Your task to perform on an android device: Search for "bose quietcomfort 35" on target, select the first entry, add it to the cart, then select checkout. Image 0: 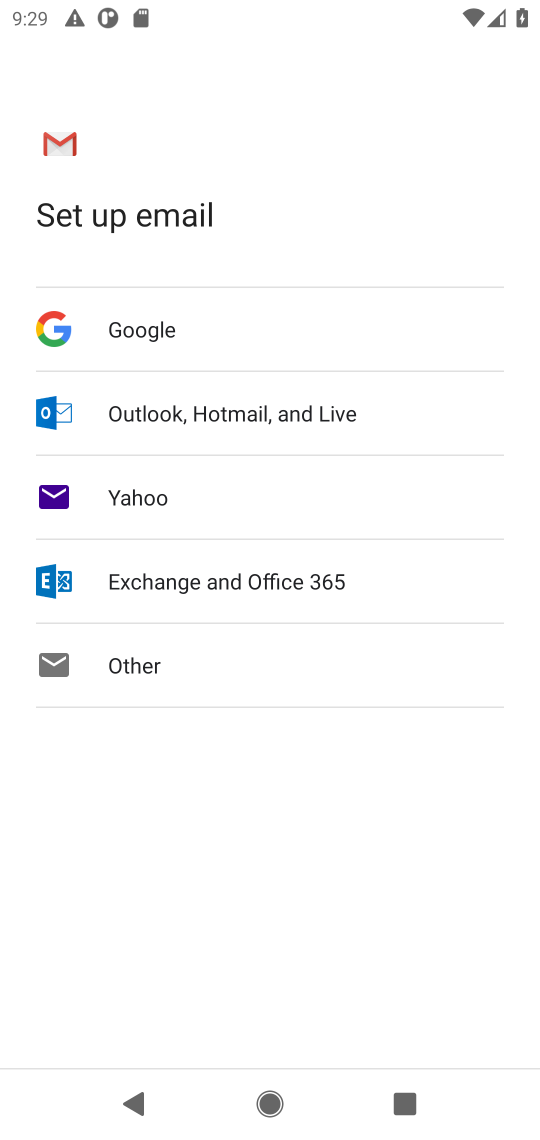
Step 0: press home button
Your task to perform on an android device: Search for "bose quietcomfort 35" on target, select the first entry, add it to the cart, then select checkout. Image 1: 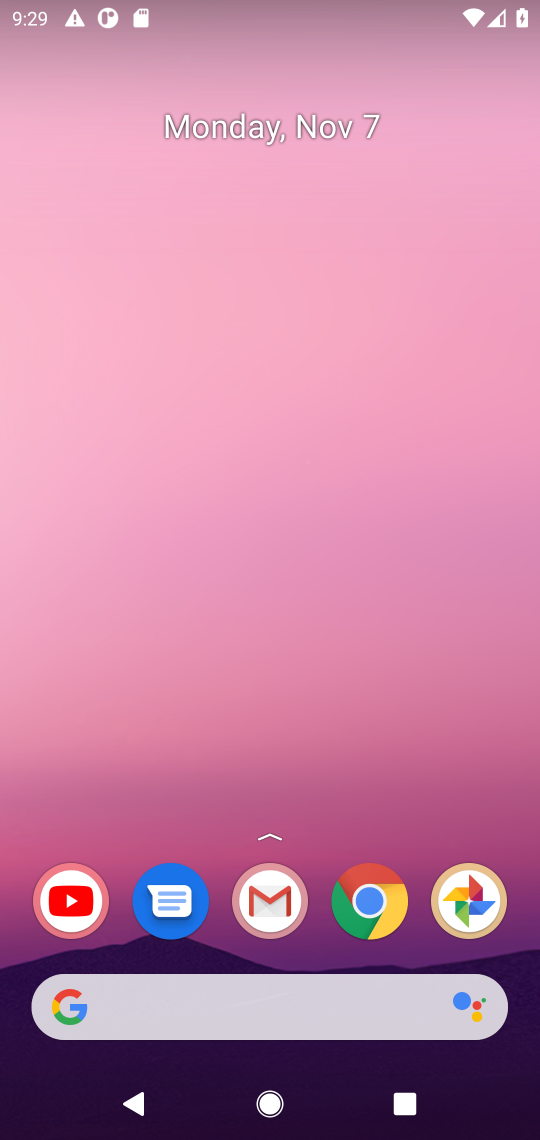
Step 1: click (374, 909)
Your task to perform on an android device: Search for "bose quietcomfort 35" on target, select the first entry, add it to the cart, then select checkout. Image 2: 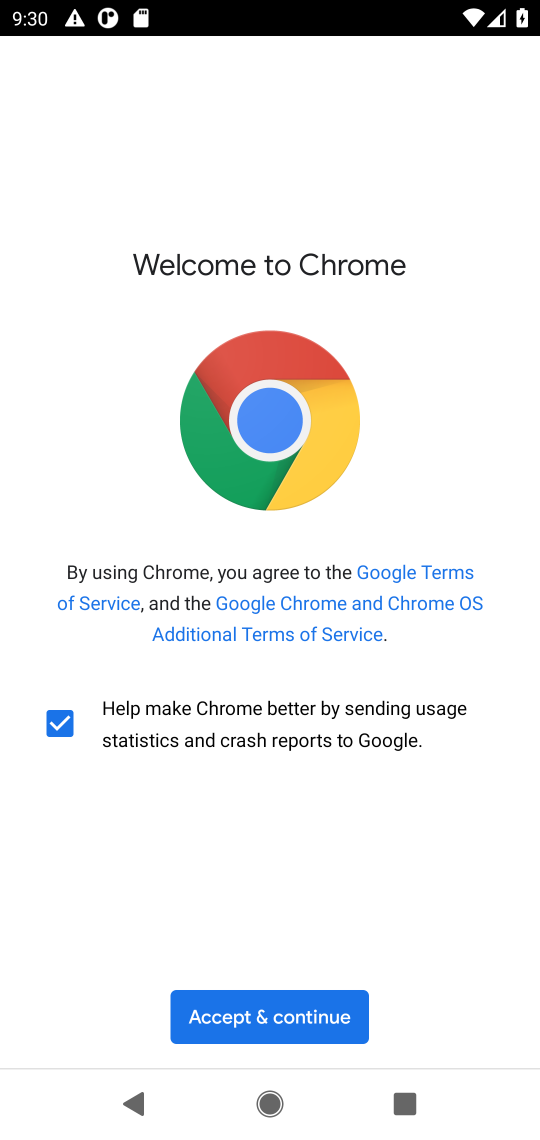
Step 2: click (298, 999)
Your task to perform on an android device: Search for "bose quietcomfort 35" on target, select the first entry, add it to the cart, then select checkout. Image 3: 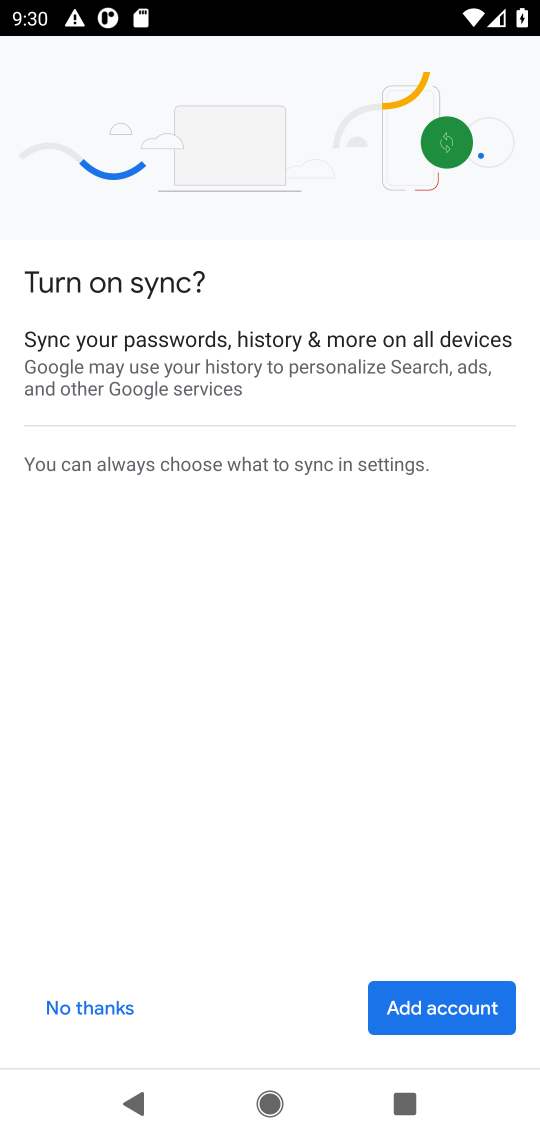
Step 3: click (106, 1009)
Your task to perform on an android device: Search for "bose quietcomfort 35" on target, select the first entry, add it to the cart, then select checkout. Image 4: 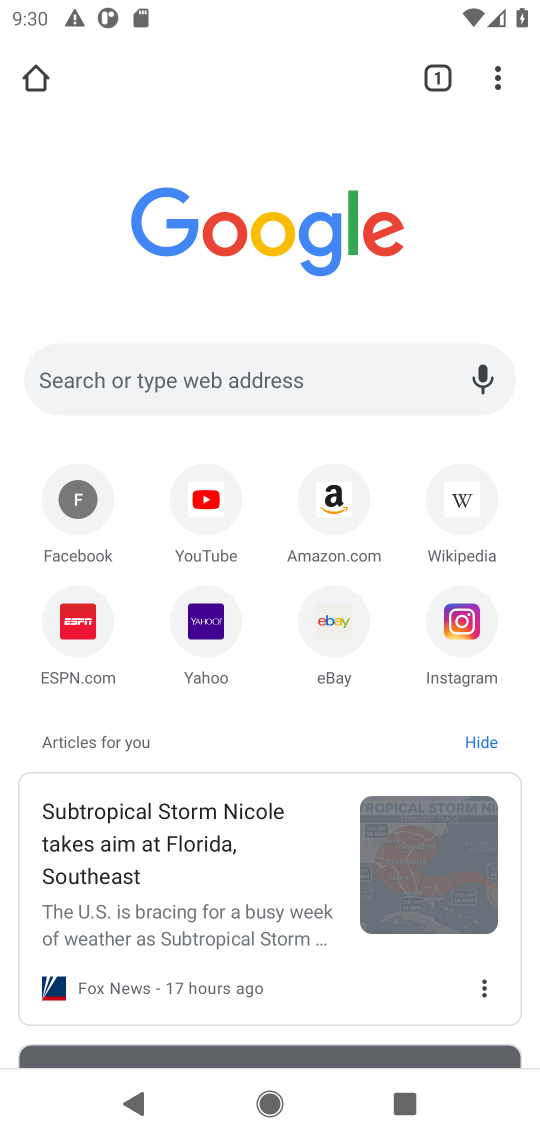
Step 4: click (292, 362)
Your task to perform on an android device: Search for "bose quietcomfort 35" on target, select the first entry, add it to the cart, then select checkout. Image 5: 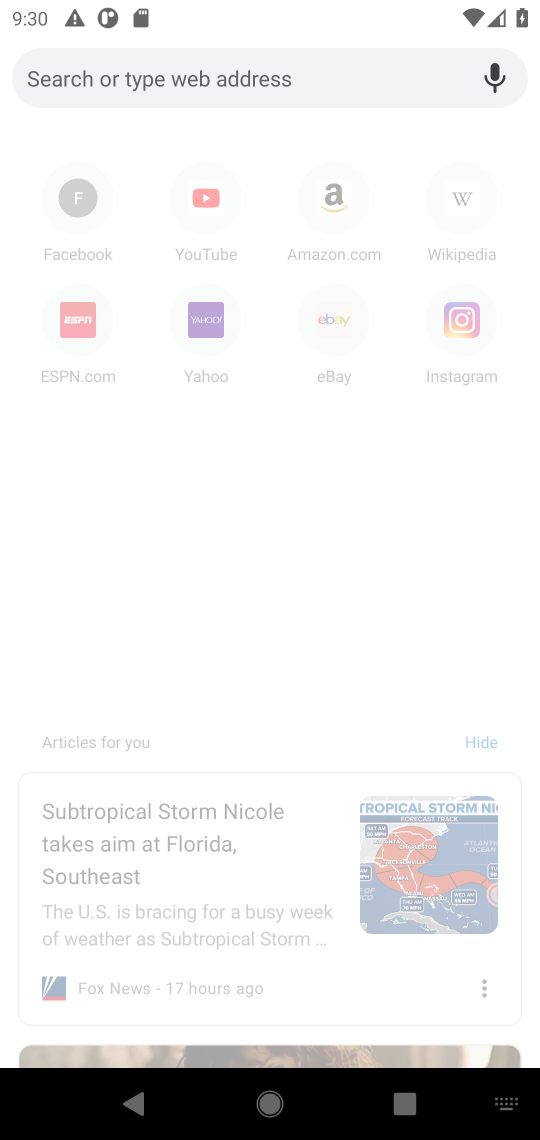
Step 5: type "target"
Your task to perform on an android device: Search for "bose quietcomfort 35" on target, select the first entry, add it to the cart, then select checkout. Image 6: 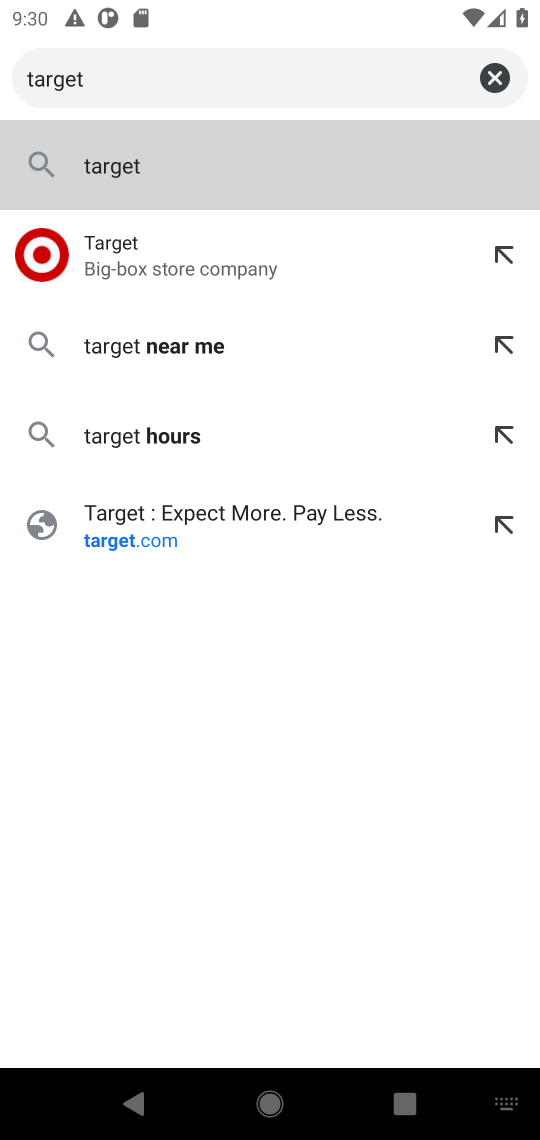
Step 6: click (241, 504)
Your task to perform on an android device: Search for "bose quietcomfort 35" on target, select the first entry, add it to the cart, then select checkout. Image 7: 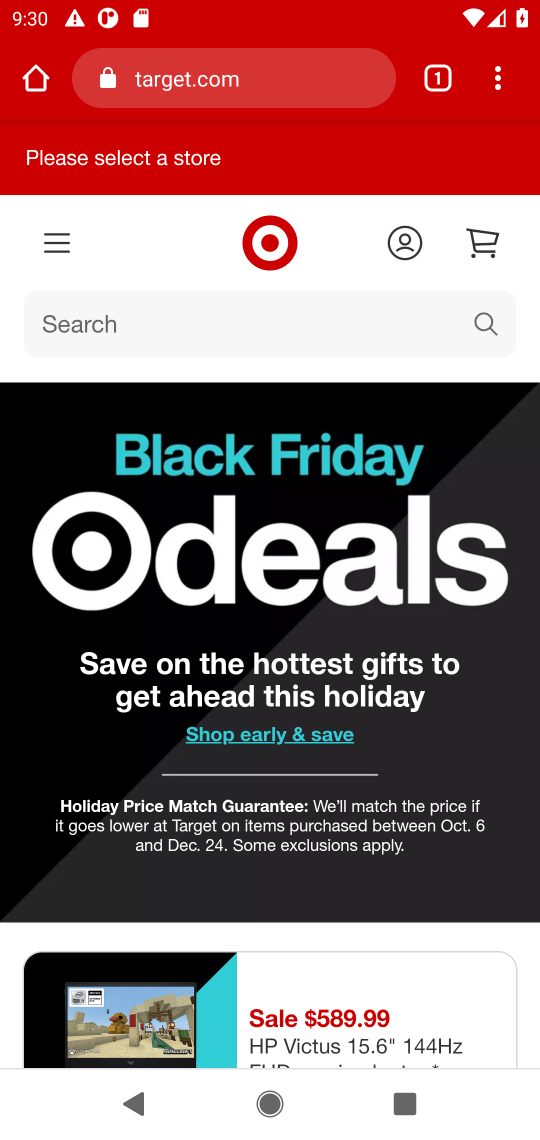
Step 7: click (155, 315)
Your task to perform on an android device: Search for "bose quietcomfort 35" on target, select the first entry, add it to the cart, then select checkout. Image 8: 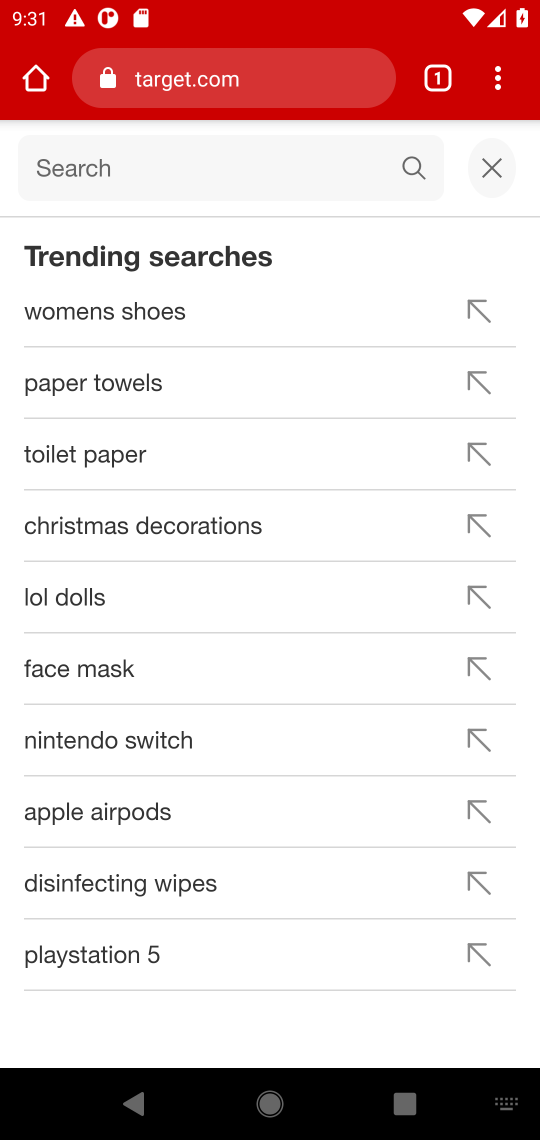
Step 8: type "bose quietcomfort 35"
Your task to perform on an android device: Search for "bose quietcomfort 35" on target, select the first entry, add it to the cart, then select checkout. Image 9: 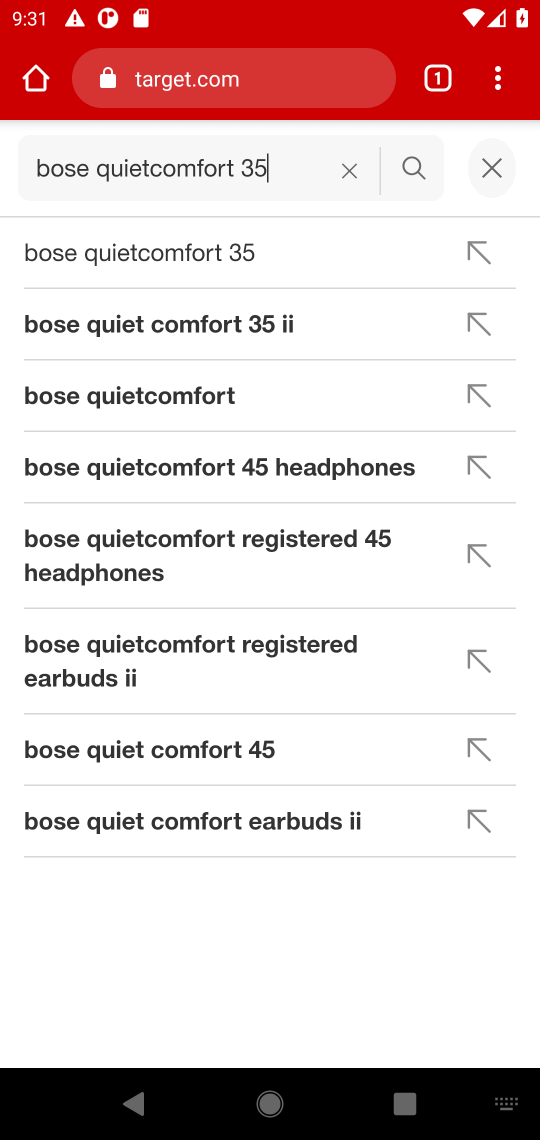
Step 9: press enter
Your task to perform on an android device: Search for "bose quietcomfort 35" on target, select the first entry, add it to the cart, then select checkout. Image 10: 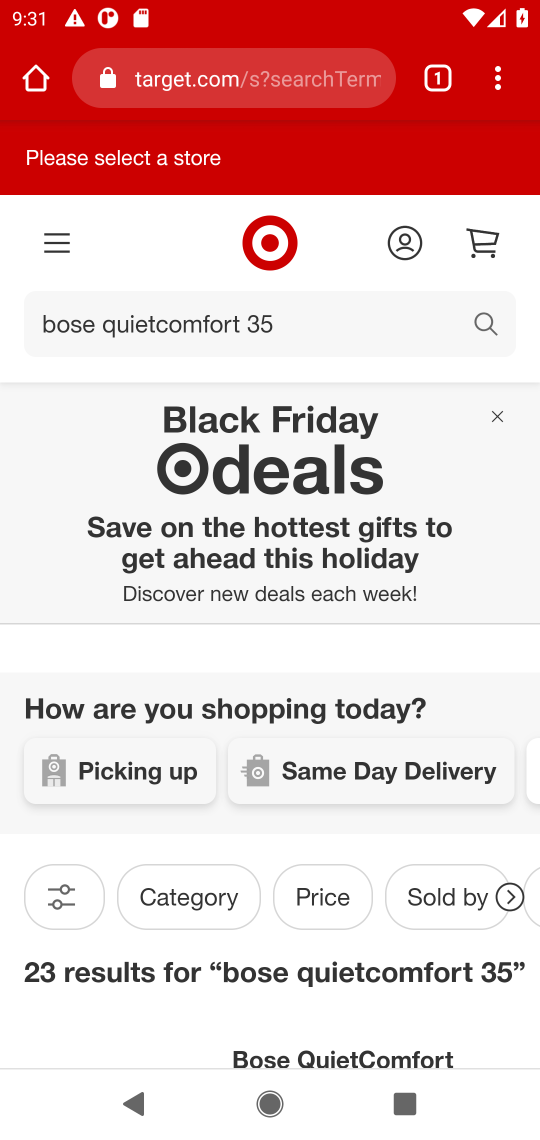
Step 10: drag from (357, 982) to (342, 58)
Your task to perform on an android device: Search for "bose quietcomfort 35" on target, select the first entry, add it to the cart, then select checkout. Image 11: 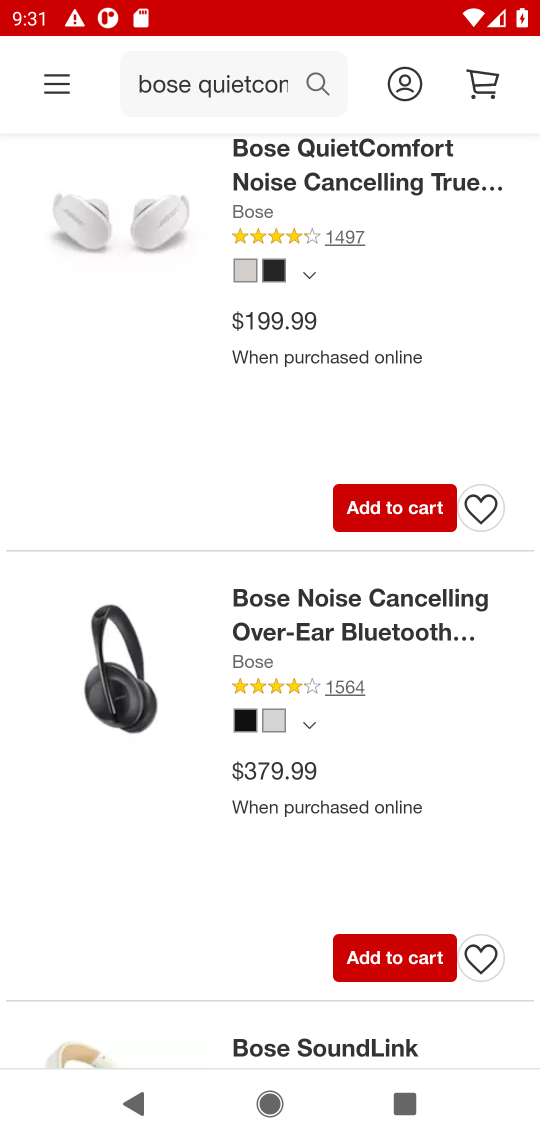
Step 11: click (388, 512)
Your task to perform on an android device: Search for "bose quietcomfort 35" on target, select the first entry, add it to the cart, then select checkout. Image 12: 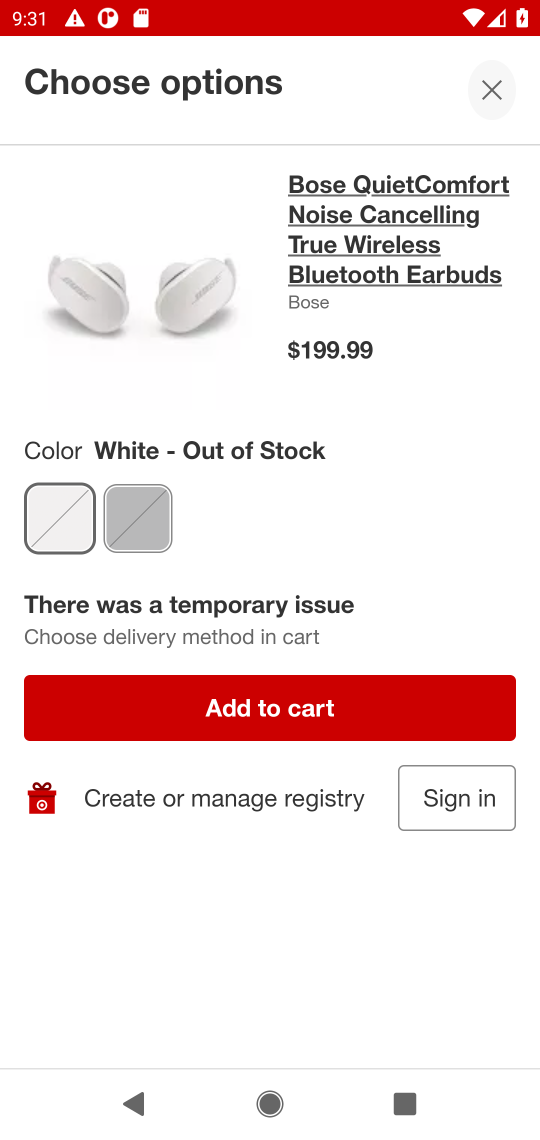
Step 12: click (339, 726)
Your task to perform on an android device: Search for "bose quietcomfort 35" on target, select the first entry, add it to the cart, then select checkout. Image 13: 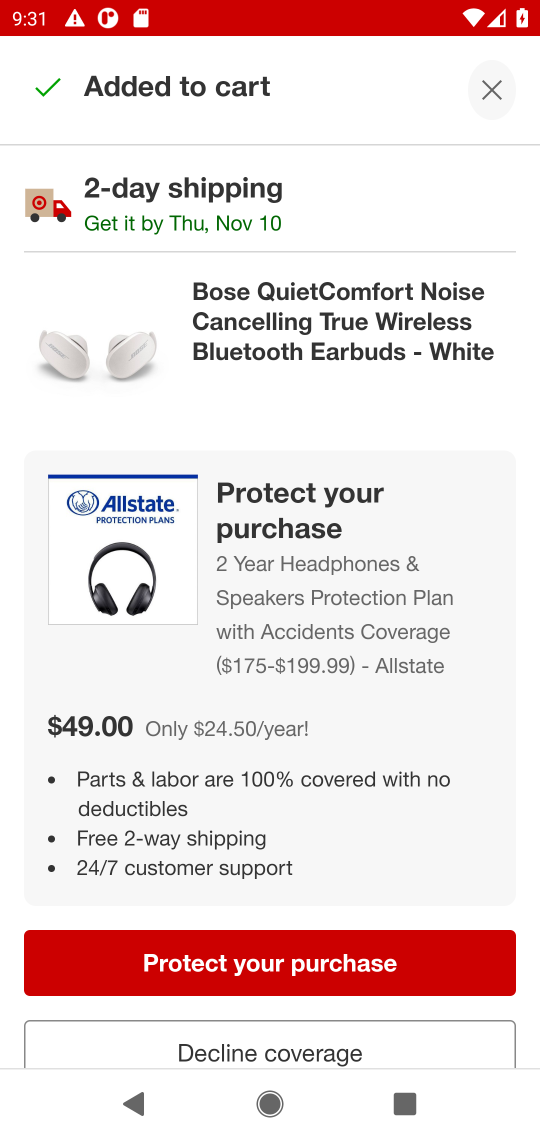
Step 13: click (375, 1048)
Your task to perform on an android device: Search for "bose quietcomfort 35" on target, select the first entry, add it to the cart, then select checkout. Image 14: 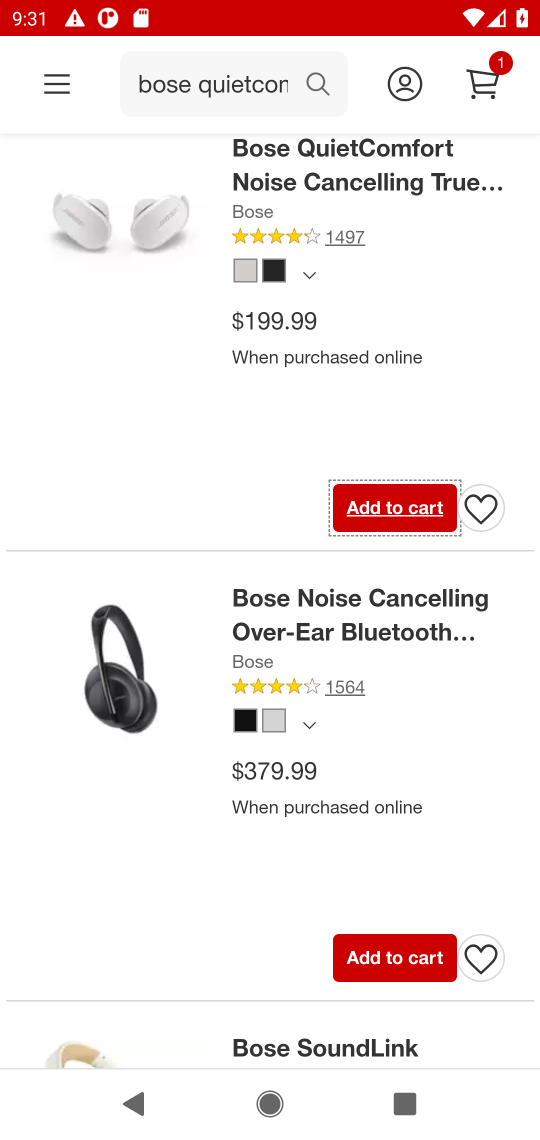
Step 14: click (487, 90)
Your task to perform on an android device: Search for "bose quietcomfort 35" on target, select the first entry, add it to the cart, then select checkout. Image 15: 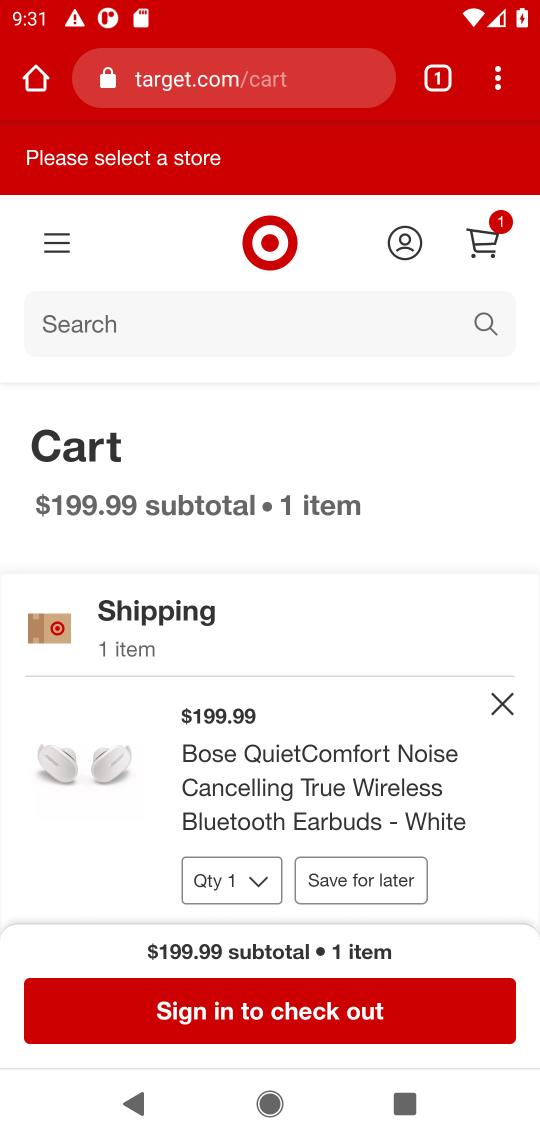
Step 15: click (465, 259)
Your task to perform on an android device: Search for "bose quietcomfort 35" on target, select the first entry, add it to the cart, then select checkout. Image 16: 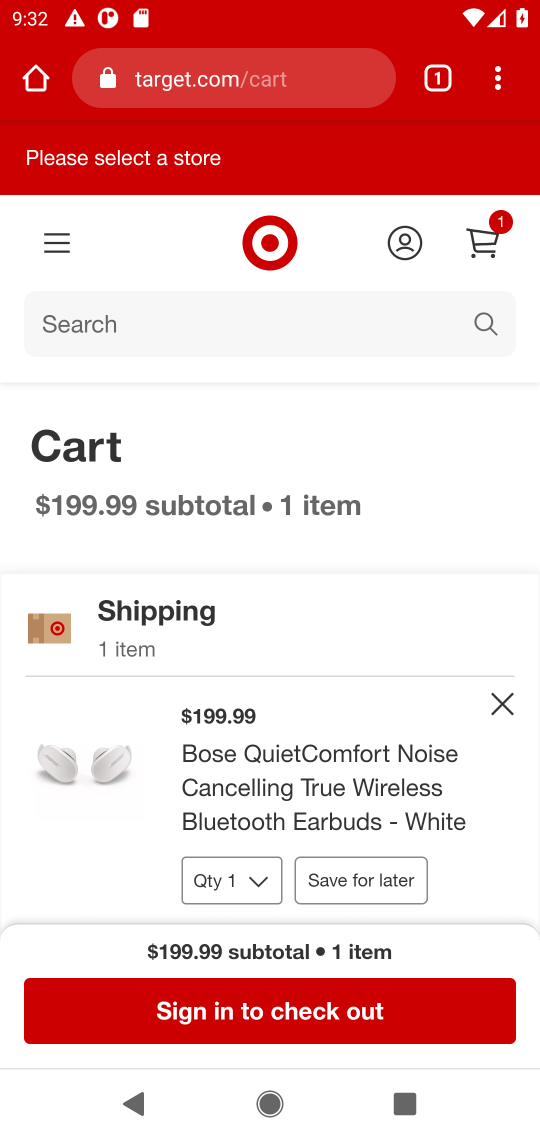
Step 16: click (391, 997)
Your task to perform on an android device: Search for "bose quietcomfort 35" on target, select the first entry, add it to the cart, then select checkout. Image 17: 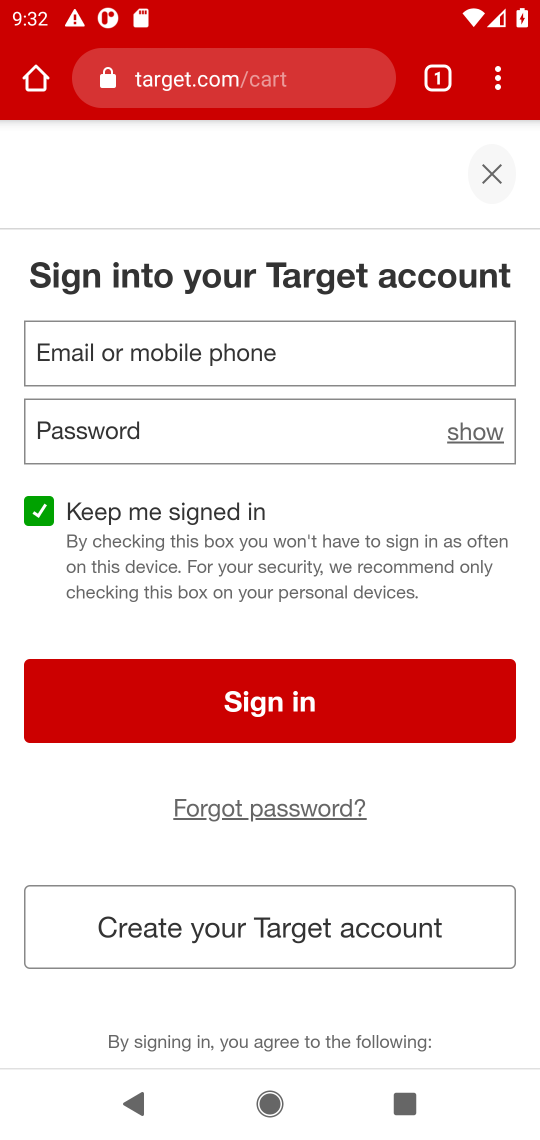
Step 17: task complete